Your task to perform on an android device: What's on my calendar tomorrow? Image 0: 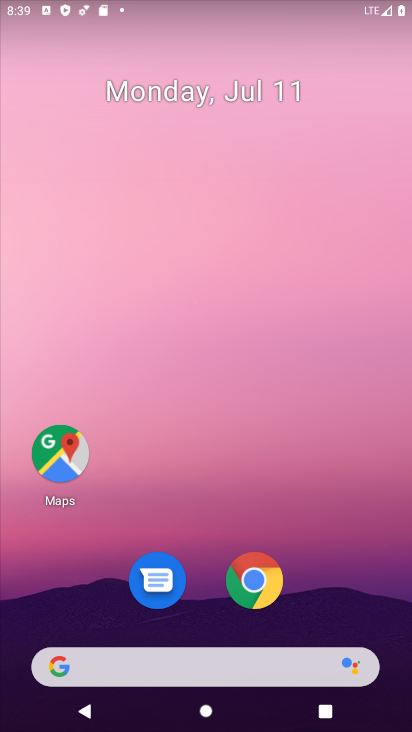
Step 0: drag from (315, 561) to (305, 37)
Your task to perform on an android device: What's on my calendar tomorrow? Image 1: 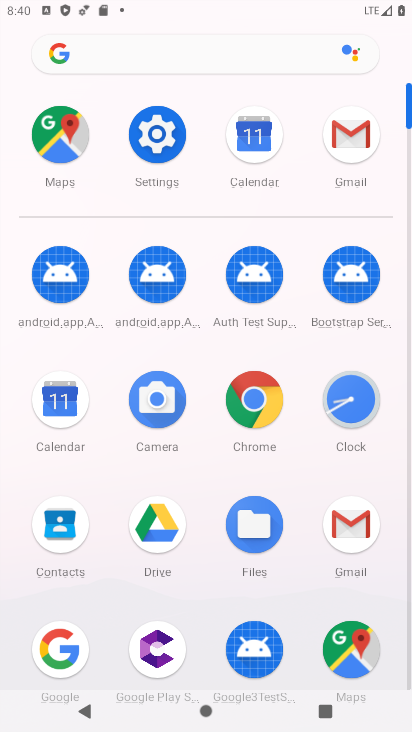
Step 1: click (266, 148)
Your task to perform on an android device: What's on my calendar tomorrow? Image 2: 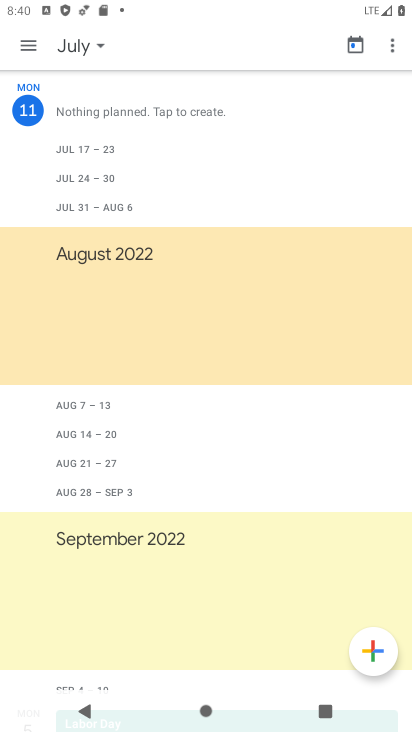
Step 2: click (32, 50)
Your task to perform on an android device: What's on my calendar tomorrow? Image 3: 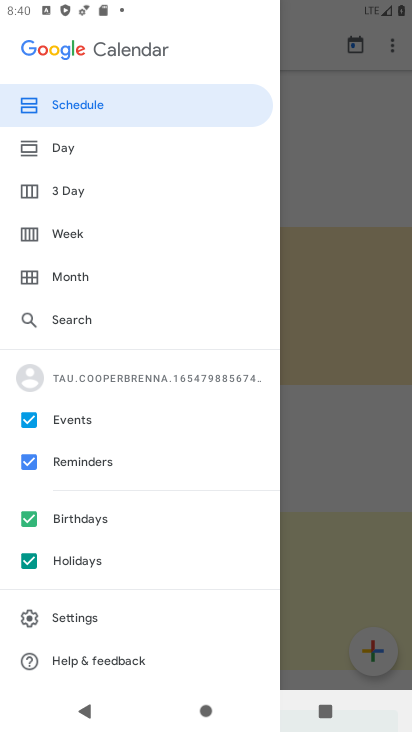
Step 3: click (46, 152)
Your task to perform on an android device: What's on my calendar tomorrow? Image 4: 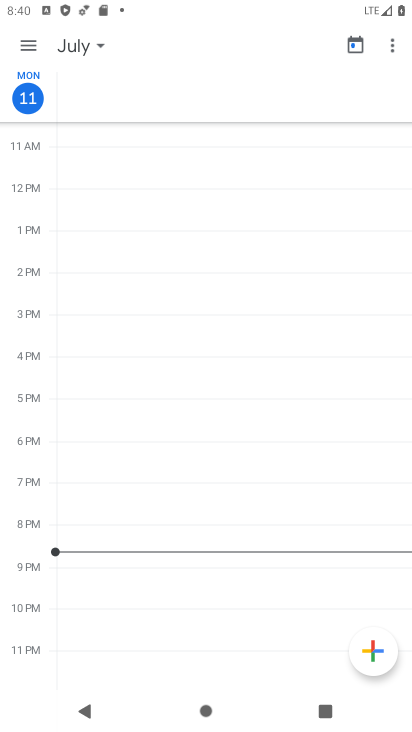
Step 4: click (30, 42)
Your task to perform on an android device: What's on my calendar tomorrow? Image 5: 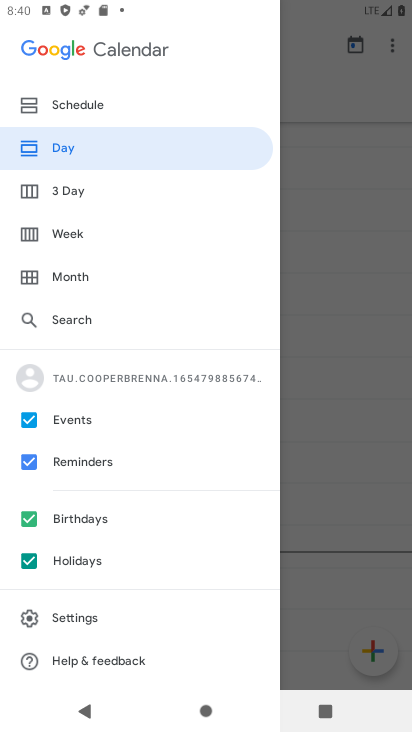
Step 5: click (67, 183)
Your task to perform on an android device: What's on my calendar tomorrow? Image 6: 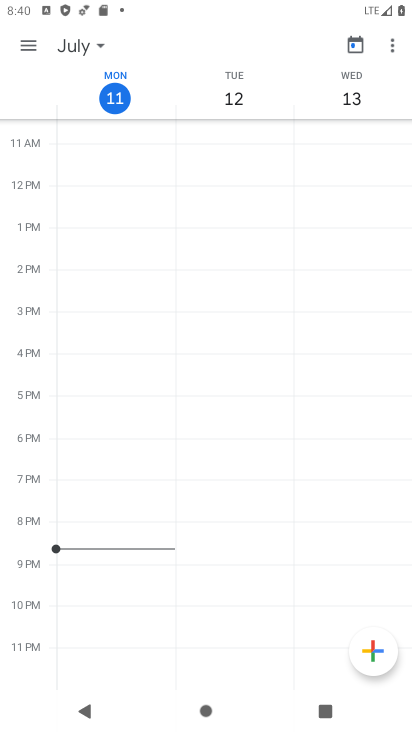
Step 6: task complete